Your task to perform on an android device: create a new album in the google photos Image 0: 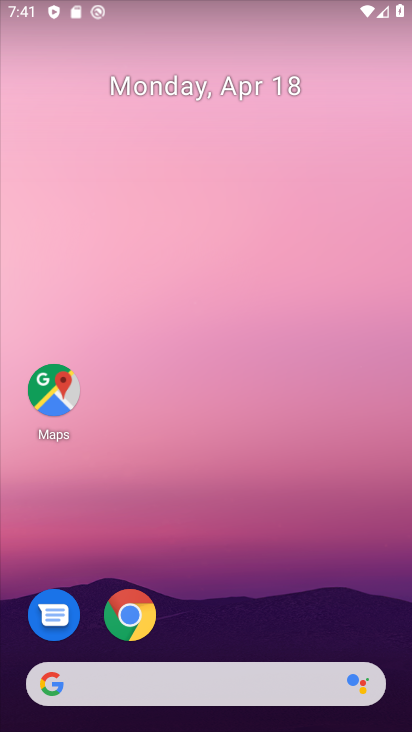
Step 0: drag from (278, 544) to (412, 63)
Your task to perform on an android device: create a new album in the google photos Image 1: 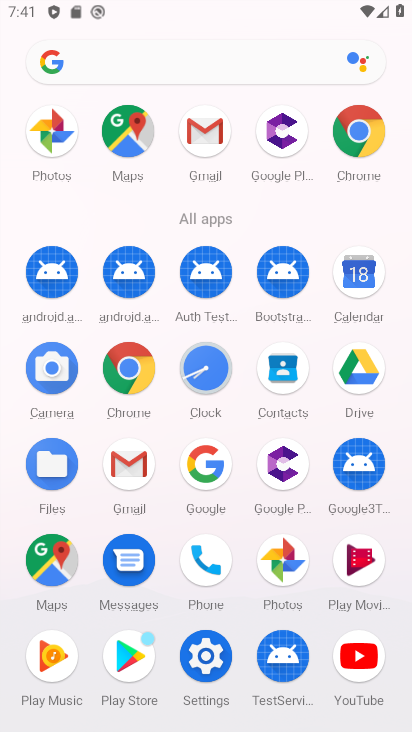
Step 1: click (63, 133)
Your task to perform on an android device: create a new album in the google photos Image 2: 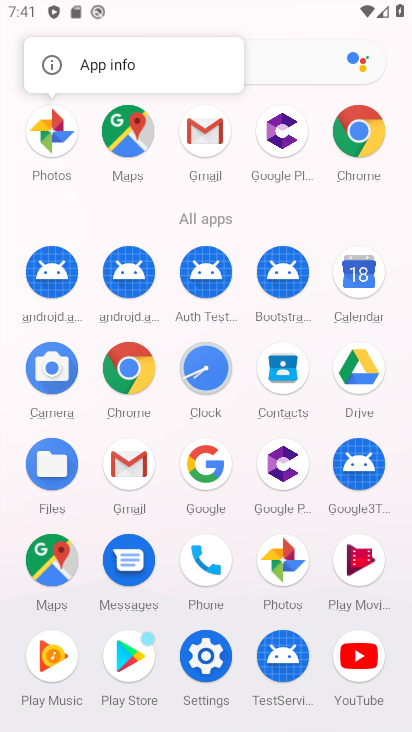
Step 2: click (63, 136)
Your task to perform on an android device: create a new album in the google photos Image 3: 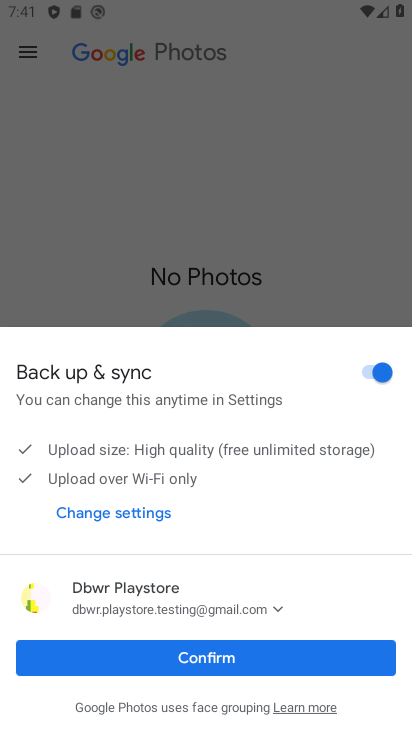
Step 3: click (203, 659)
Your task to perform on an android device: create a new album in the google photos Image 4: 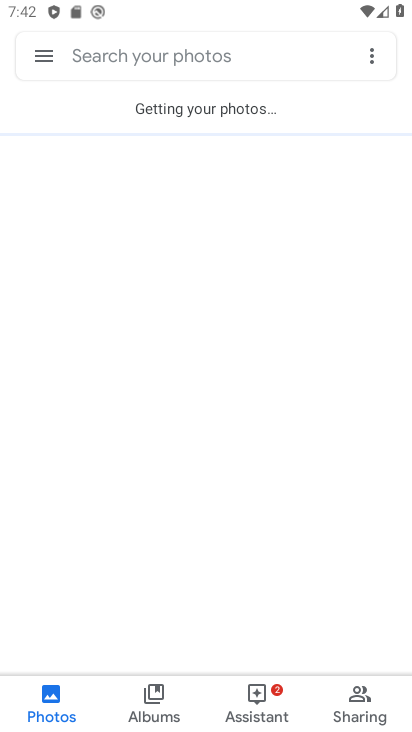
Step 4: click (41, 52)
Your task to perform on an android device: create a new album in the google photos Image 5: 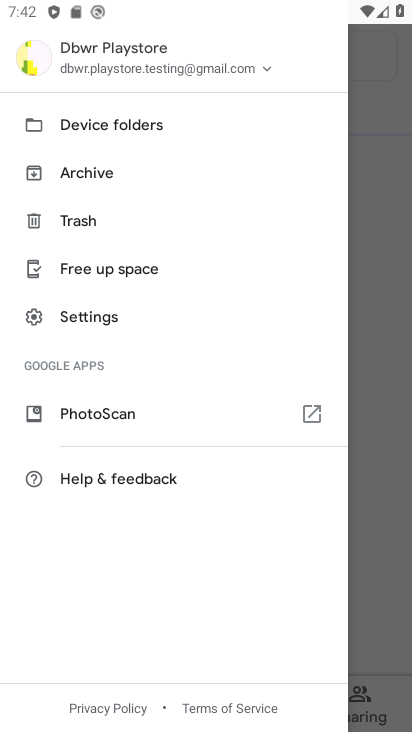
Step 5: click (366, 212)
Your task to perform on an android device: create a new album in the google photos Image 6: 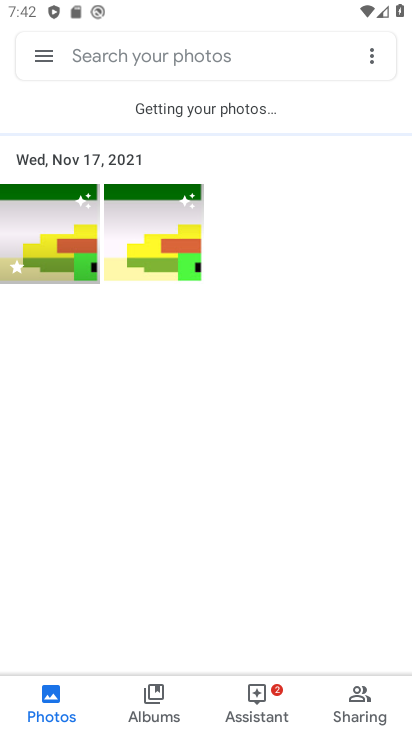
Step 6: click (154, 702)
Your task to perform on an android device: create a new album in the google photos Image 7: 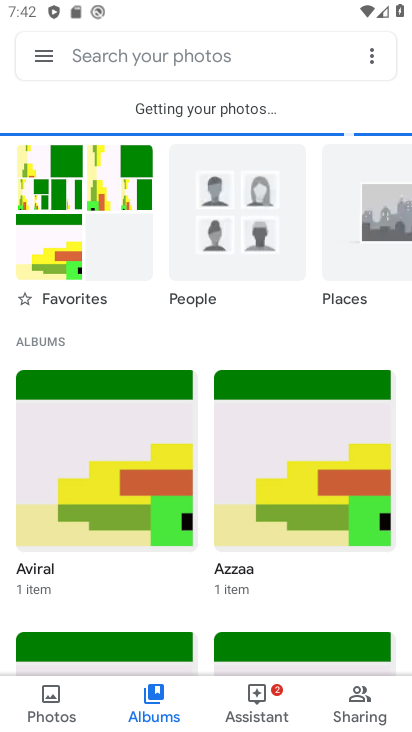
Step 7: click (372, 62)
Your task to perform on an android device: create a new album in the google photos Image 8: 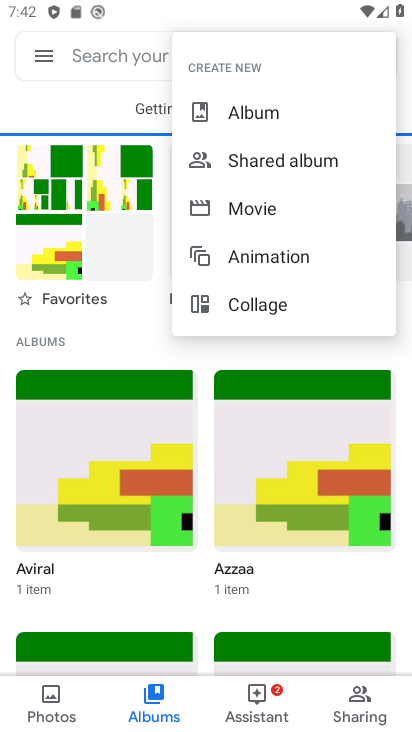
Step 8: click (317, 113)
Your task to perform on an android device: create a new album in the google photos Image 9: 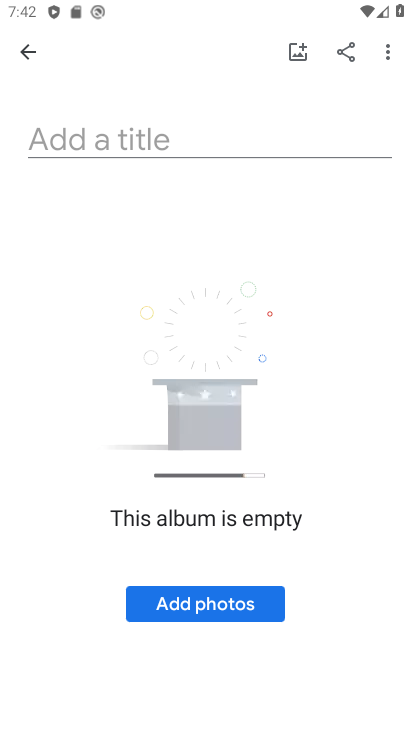
Step 9: click (281, 137)
Your task to perform on an android device: create a new album in the google photos Image 10: 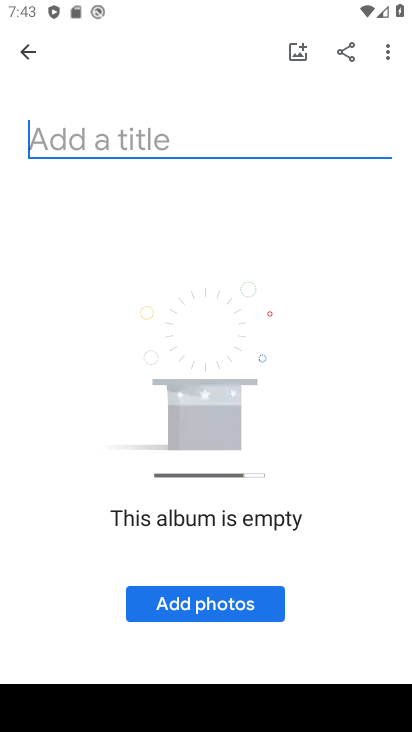
Step 10: type "Maharaj Yogi Adityanath"
Your task to perform on an android device: create a new album in the google photos Image 11: 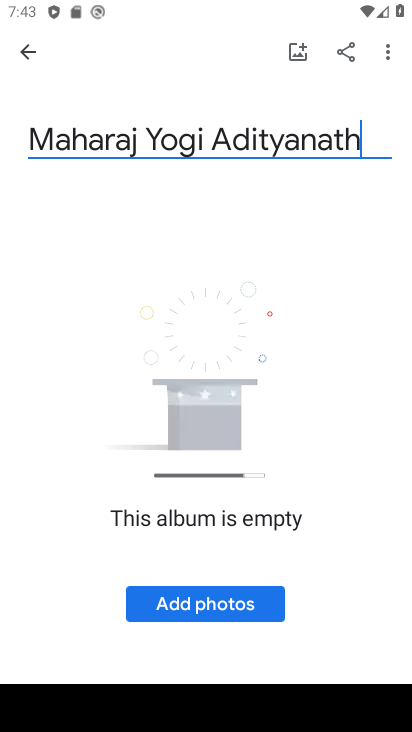
Step 11: click (244, 605)
Your task to perform on an android device: create a new album in the google photos Image 12: 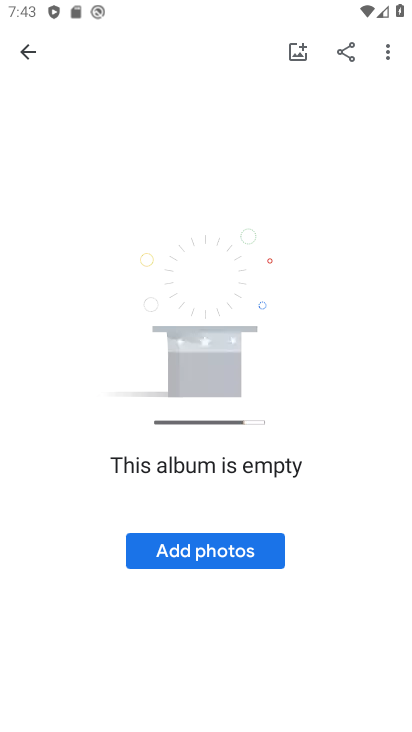
Step 12: click (237, 544)
Your task to perform on an android device: create a new album in the google photos Image 13: 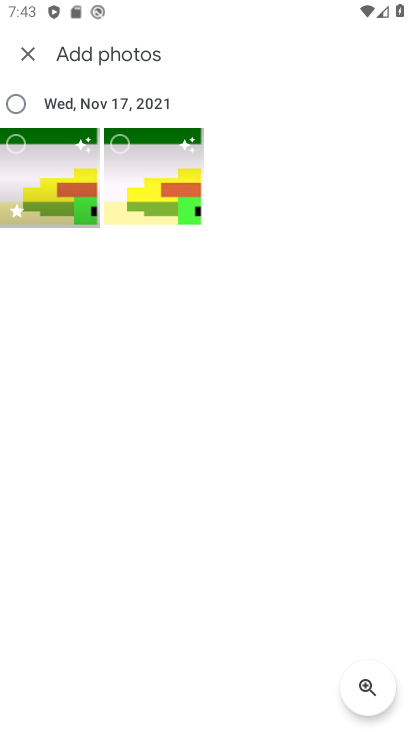
Step 13: click (127, 143)
Your task to perform on an android device: create a new album in the google photos Image 14: 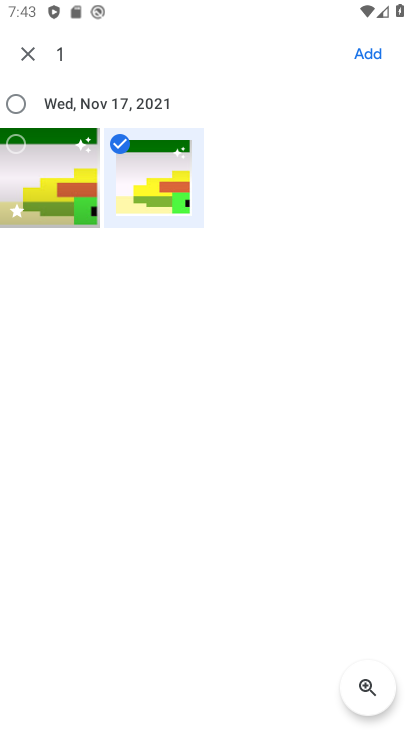
Step 14: click (376, 48)
Your task to perform on an android device: create a new album in the google photos Image 15: 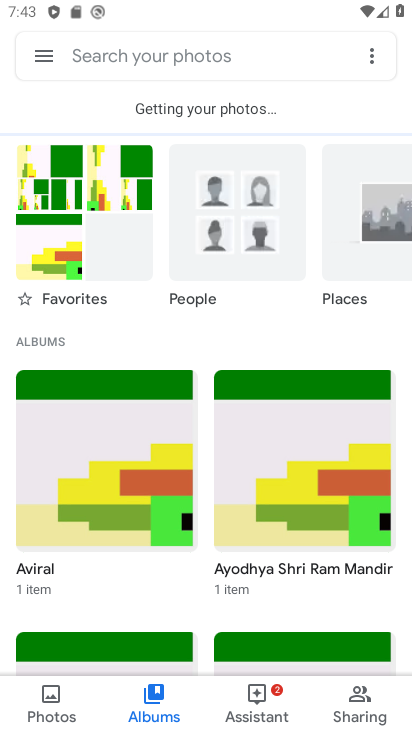
Step 15: task complete